Your task to perform on an android device: Go to CNN.com Image 0: 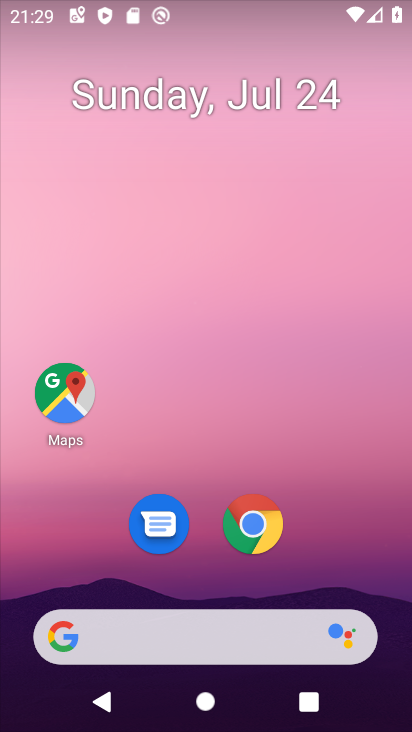
Step 0: click (248, 531)
Your task to perform on an android device: Go to CNN.com Image 1: 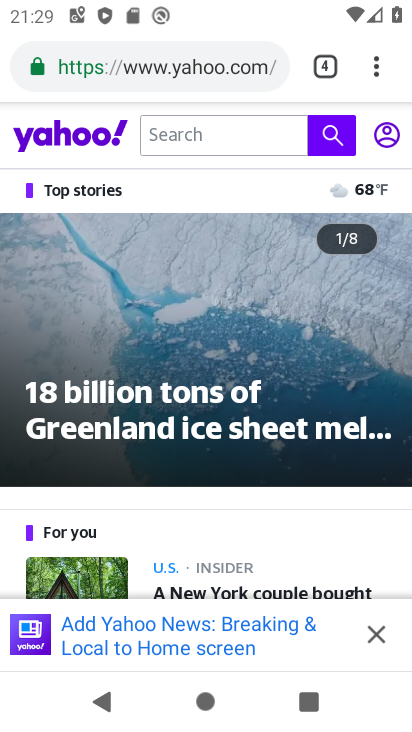
Step 1: drag from (368, 66) to (214, 131)
Your task to perform on an android device: Go to CNN.com Image 2: 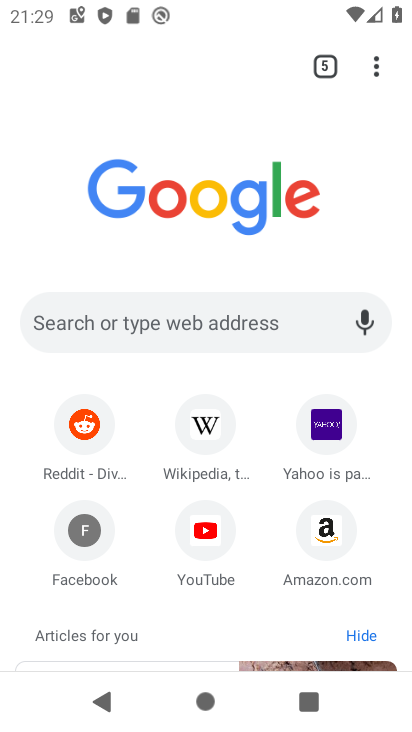
Step 2: click (151, 326)
Your task to perform on an android device: Go to CNN.com Image 3: 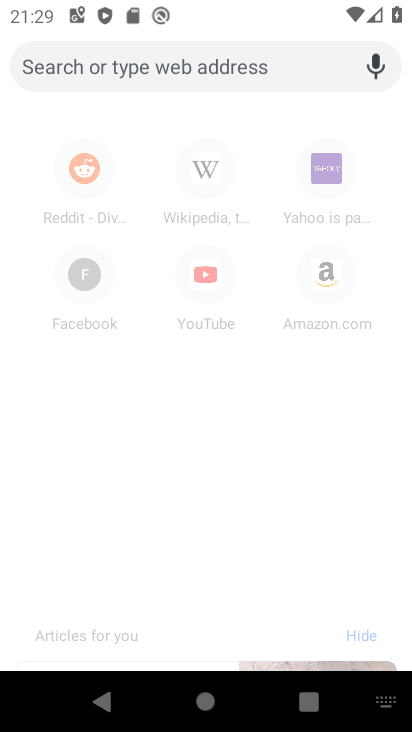
Step 3: type "cnn.com"
Your task to perform on an android device: Go to CNN.com Image 4: 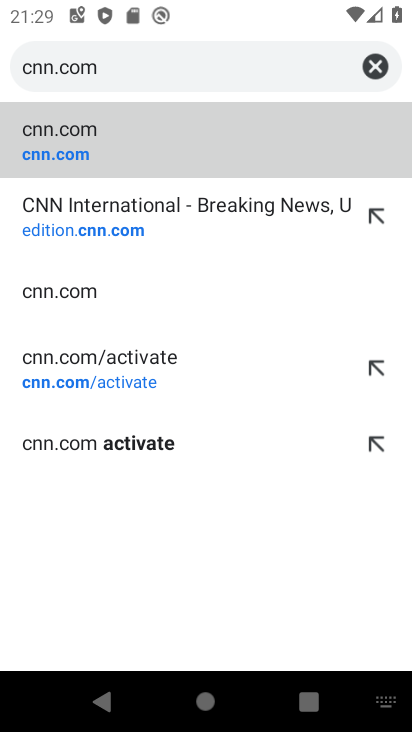
Step 4: click (125, 156)
Your task to perform on an android device: Go to CNN.com Image 5: 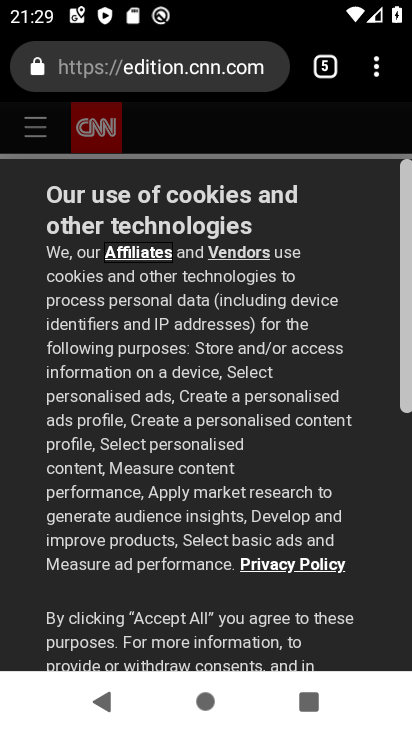
Step 5: drag from (143, 602) to (358, 74)
Your task to perform on an android device: Go to CNN.com Image 6: 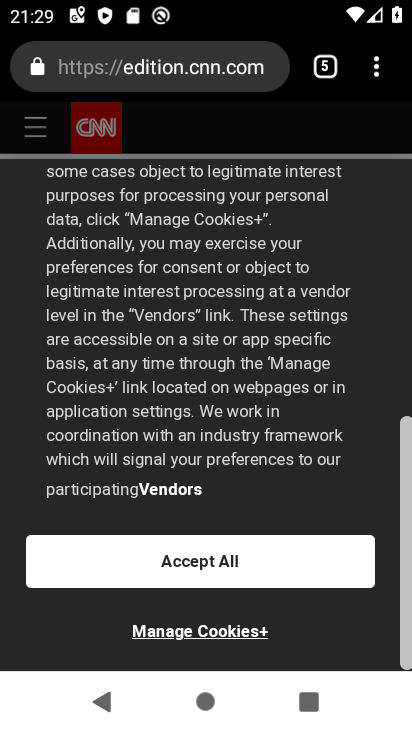
Step 6: click (265, 562)
Your task to perform on an android device: Go to CNN.com Image 7: 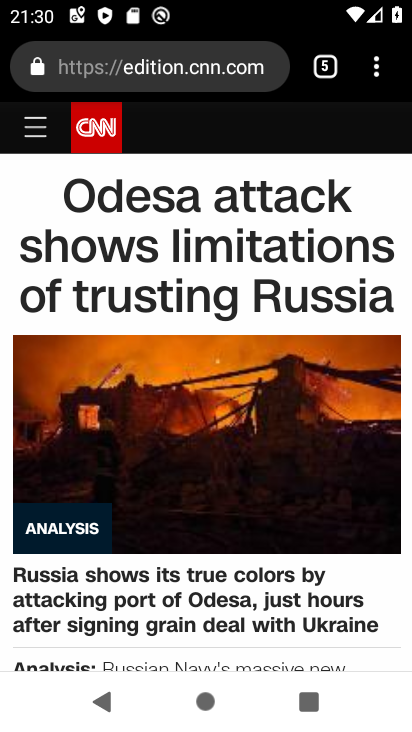
Step 7: task complete